Your task to perform on an android device: turn on notifications settings in the gmail app Image 0: 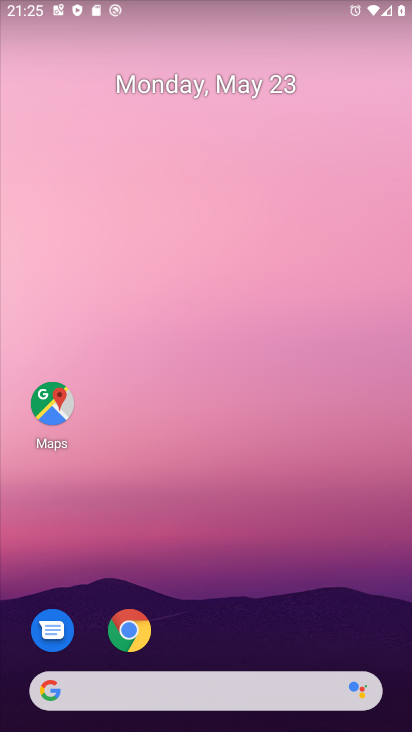
Step 0: drag from (119, 655) to (131, 136)
Your task to perform on an android device: turn on notifications settings in the gmail app Image 1: 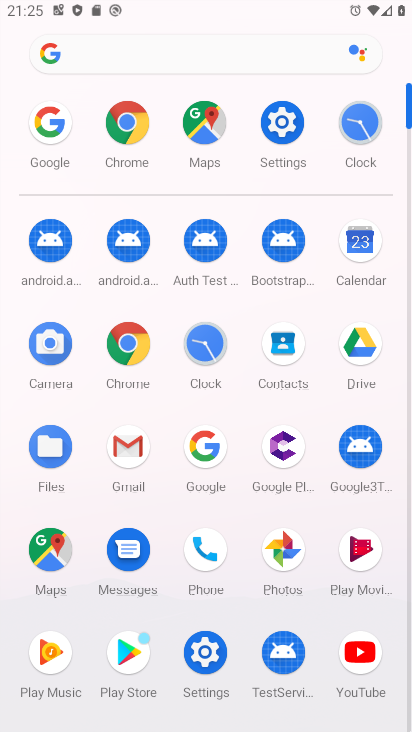
Step 1: click (129, 451)
Your task to perform on an android device: turn on notifications settings in the gmail app Image 2: 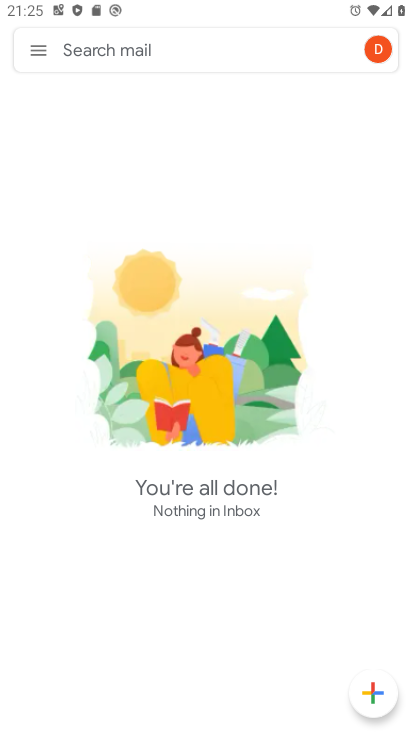
Step 2: click (33, 51)
Your task to perform on an android device: turn on notifications settings in the gmail app Image 3: 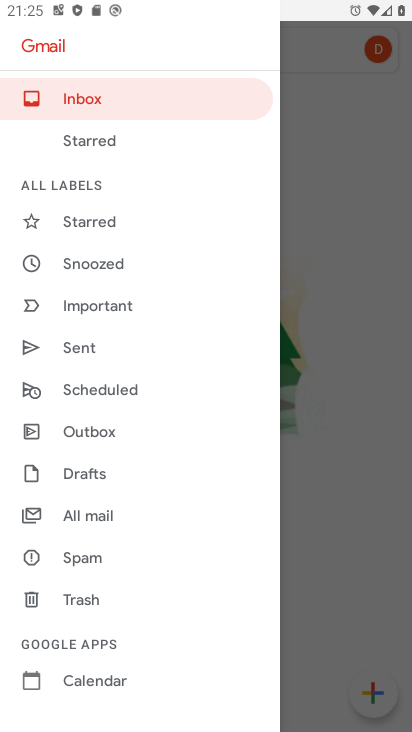
Step 3: drag from (108, 648) to (100, 335)
Your task to perform on an android device: turn on notifications settings in the gmail app Image 4: 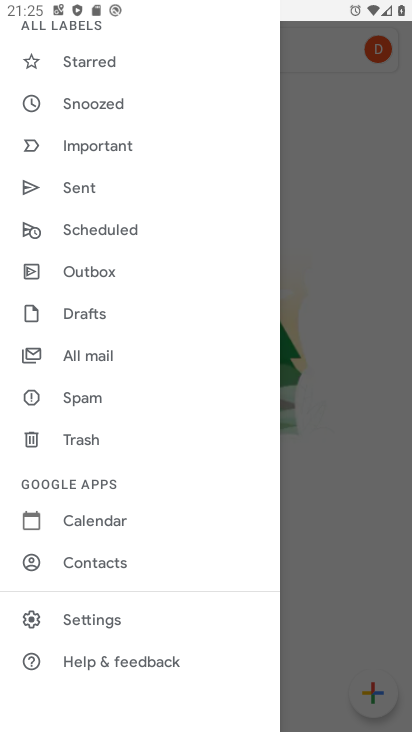
Step 4: click (110, 617)
Your task to perform on an android device: turn on notifications settings in the gmail app Image 5: 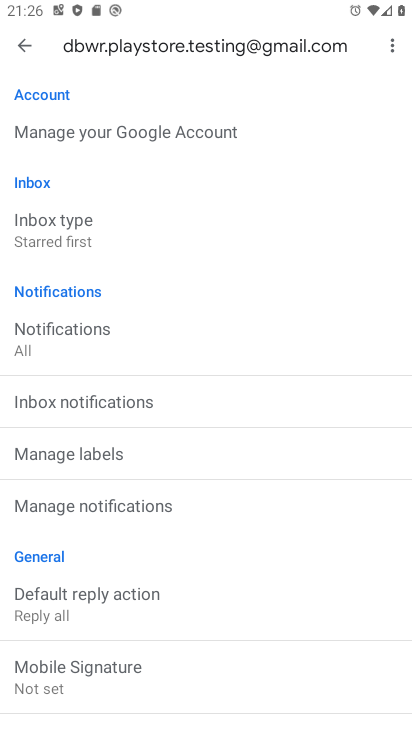
Step 5: click (24, 48)
Your task to perform on an android device: turn on notifications settings in the gmail app Image 6: 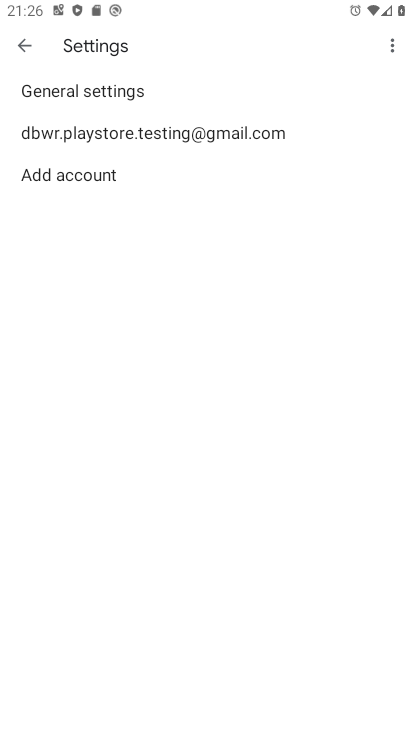
Step 6: click (52, 94)
Your task to perform on an android device: turn on notifications settings in the gmail app Image 7: 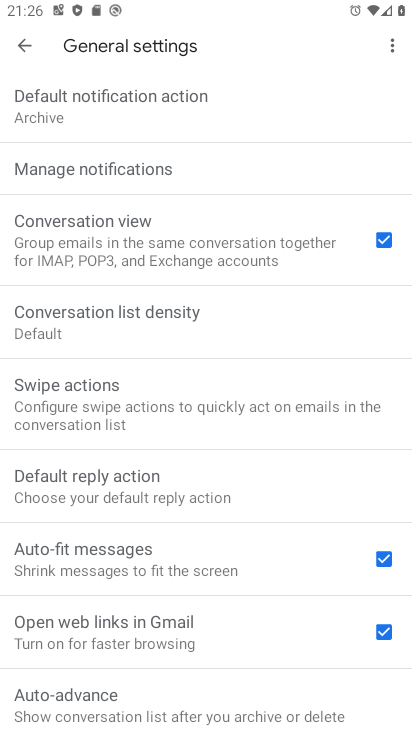
Step 7: click (140, 171)
Your task to perform on an android device: turn on notifications settings in the gmail app Image 8: 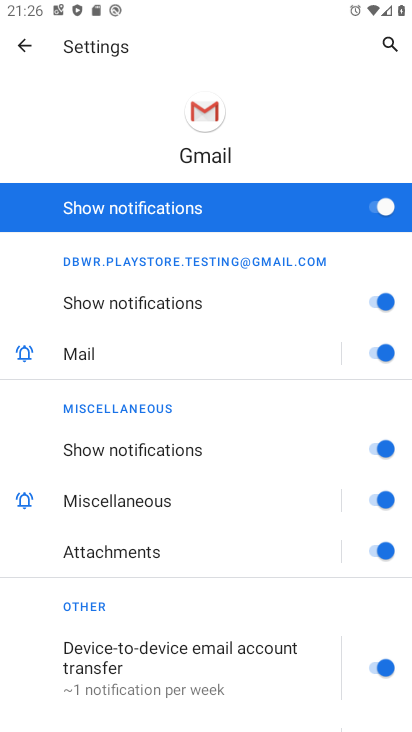
Step 8: task complete